Your task to perform on an android device: Open the stopwatch Image 0: 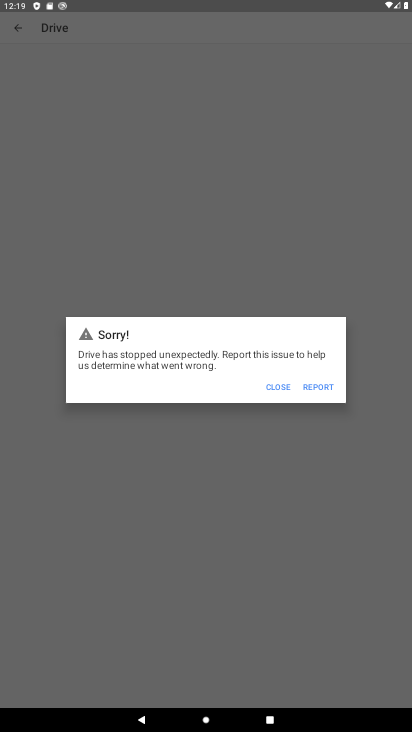
Step 0: press home button
Your task to perform on an android device: Open the stopwatch Image 1: 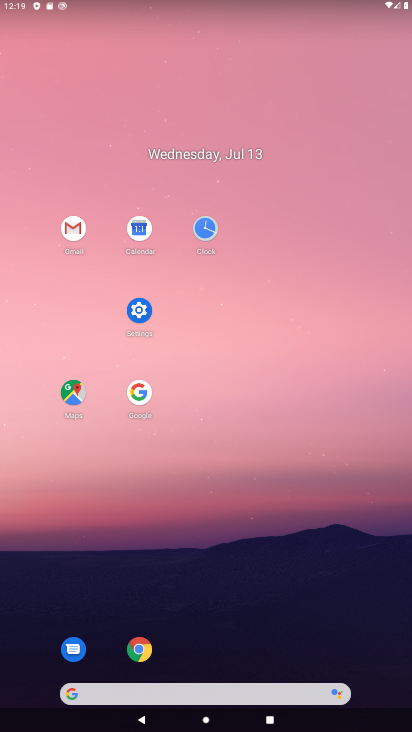
Step 1: click (198, 238)
Your task to perform on an android device: Open the stopwatch Image 2: 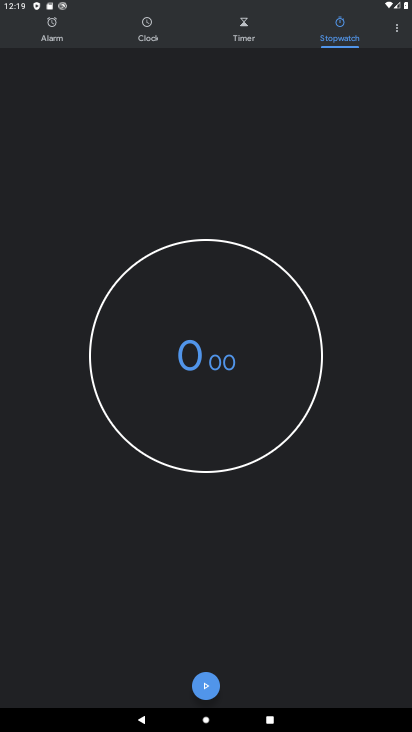
Step 2: task complete